Your task to perform on an android device: Add "sony triple a" to the cart on ebay Image 0: 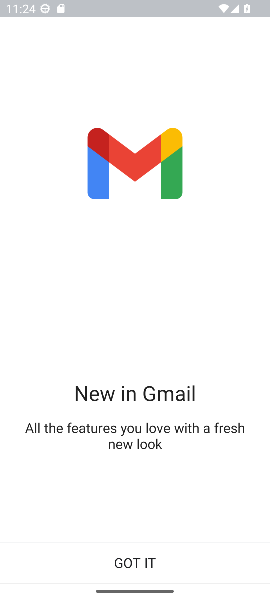
Step 0: press home button
Your task to perform on an android device: Add "sony triple a" to the cart on ebay Image 1: 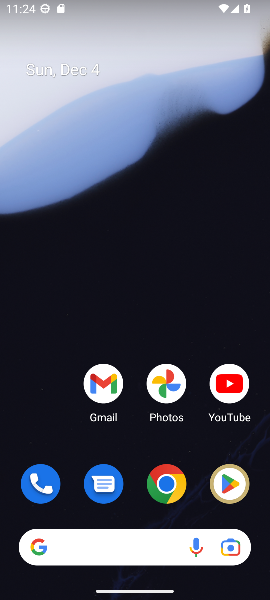
Step 1: click (167, 489)
Your task to perform on an android device: Add "sony triple a" to the cart on ebay Image 2: 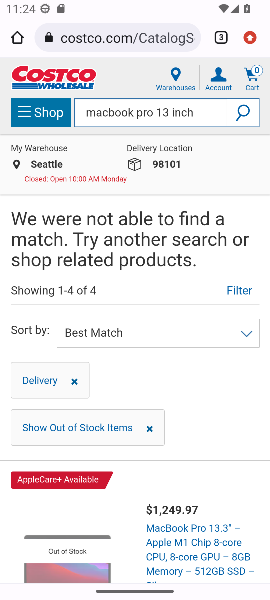
Step 2: click (109, 39)
Your task to perform on an android device: Add "sony triple a" to the cart on ebay Image 3: 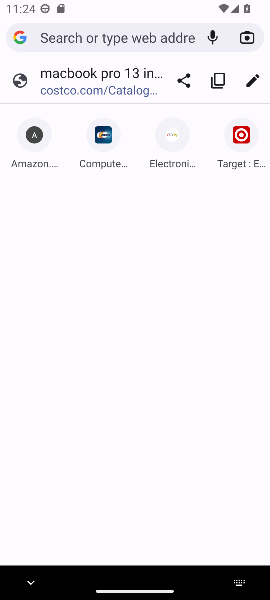
Step 3: type "ebay.com"
Your task to perform on an android device: Add "sony triple a" to the cart on ebay Image 4: 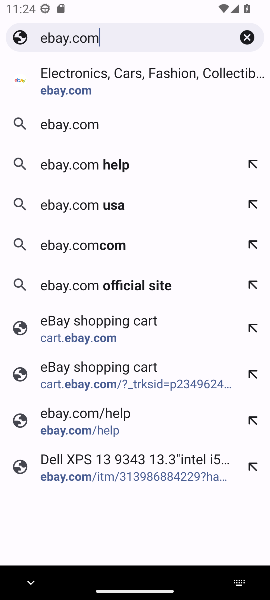
Step 4: click (54, 89)
Your task to perform on an android device: Add "sony triple a" to the cart on ebay Image 5: 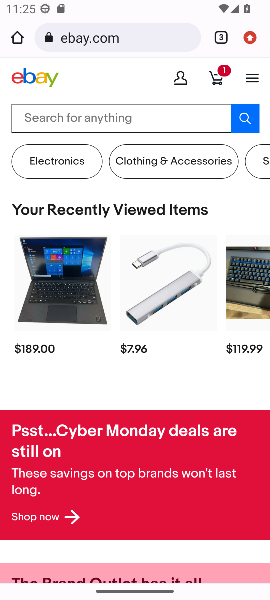
Step 5: click (68, 120)
Your task to perform on an android device: Add "sony triple a" to the cart on ebay Image 6: 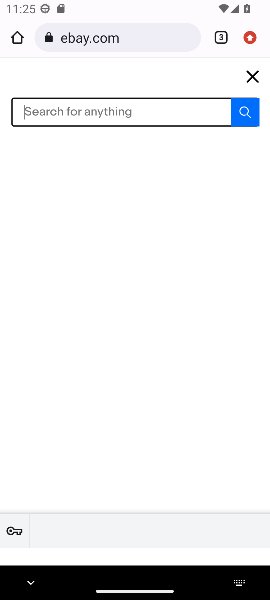
Step 6: type "sony triple a"
Your task to perform on an android device: Add "sony triple a" to the cart on ebay Image 7: 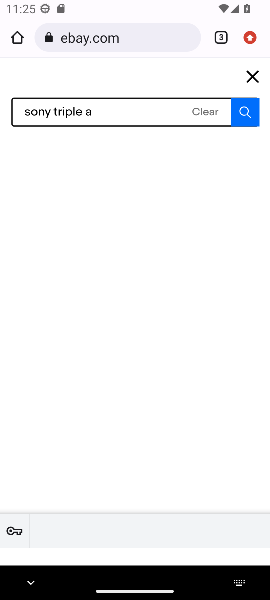
Step 7: click (250, 113)
Your task to perform on an android device: Add "sony triple a" to the cart on ebay Image 8: 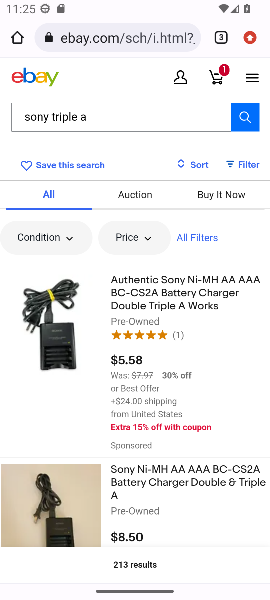
Step 8: drag from (148, 433) to (157, 279)
Your task to perform on an android device: Add "sony triple a" to the cart on ebay Image 9: 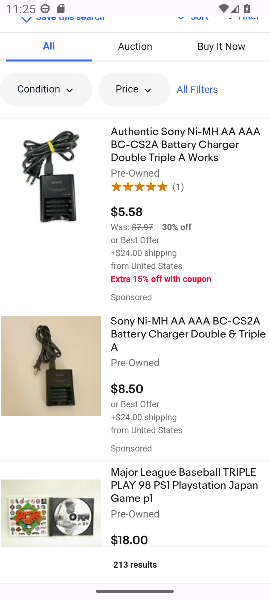
Step 9: drag from (144, 432) to (156, 268)
Your task to perform on an android device: Add "sony triple a" to the cart on ebay Image 10: 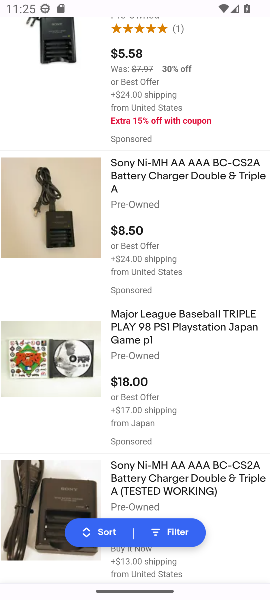
Step 10: drag from (155, 271) to (136, 451)
Your task to perform on an android device: Add "sony triple a" to the cart on ebay Image 11: 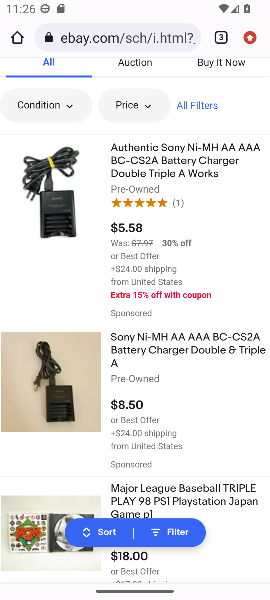
Step 11: click (133, 354)
Your task to perform on an android device: Add "sony triple a" to the cart on ebay Image 12: 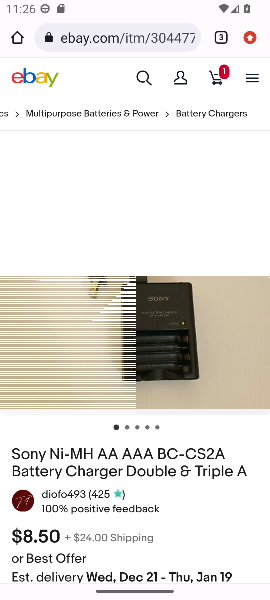
Step 12: drag from (71, 489) to (64, 296)
Your task to perform on an android device: Add "sony triple a" to the cart on ebay Image 13: 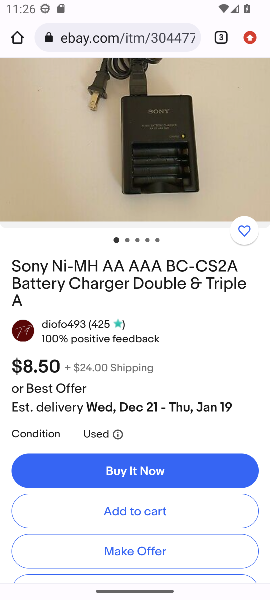
Step 13: click (73, 517)
Your task to perform on an android device: Add "sony triple a" to the cart on ebay Image 14: 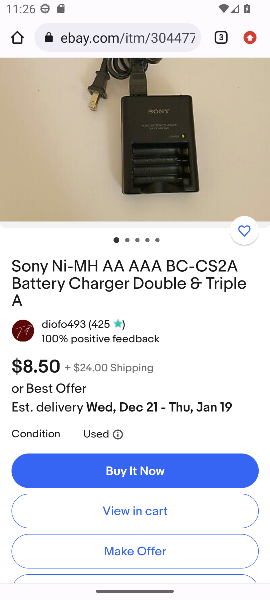
Step 14: task complete